Your task to perform on an android device: Search for sushi restaurants on Maps Image 0: 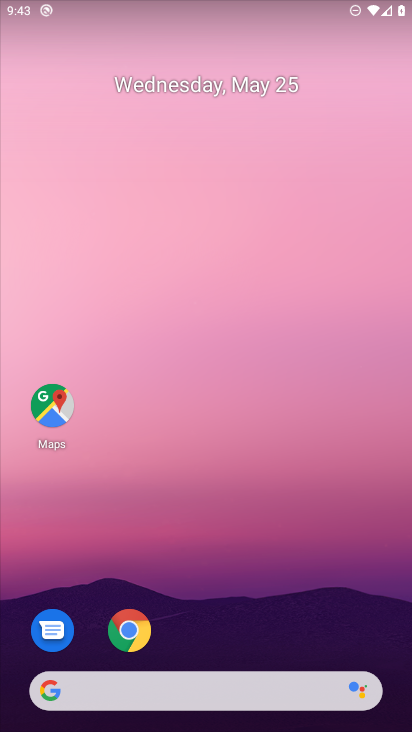
Step 0: click (49, 413)
Your task to perform on an android device: Search for sushi restaurants on Maps Image 1: 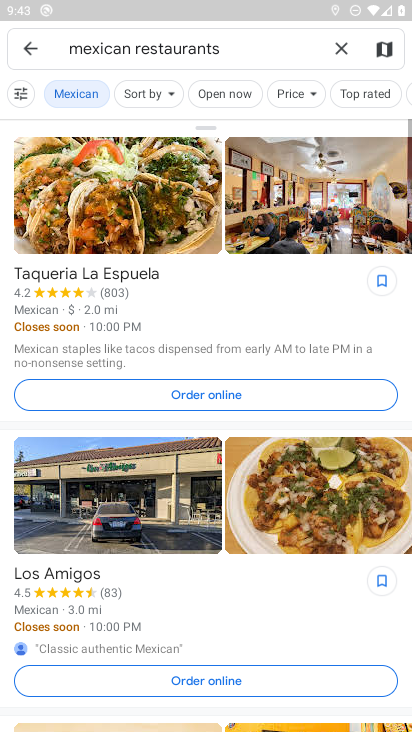
Step 1: click (334, 45)
Your task to perform on an android device: Search for sushi restaurants on Maps Image 2: 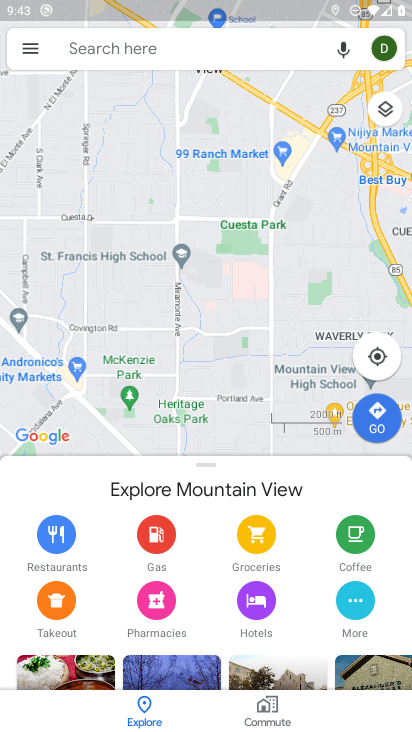
Step 2: click (217, 57)
Your task to perform on an android device: Search for sushi restaurants on Maps Image 3: 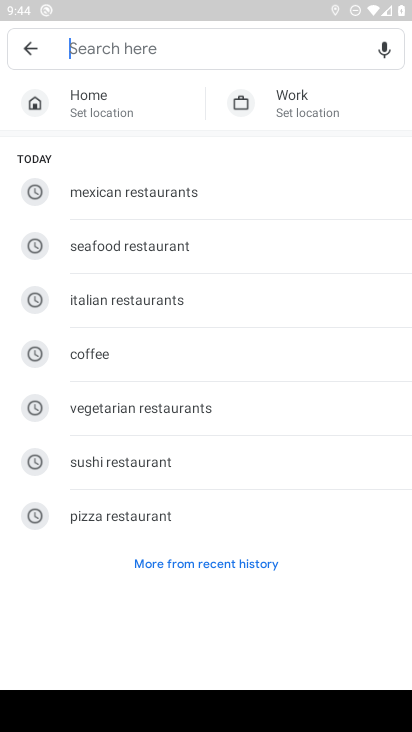
Step 3: click (132, 462)
Your task to perform on an android device: Search for sushi restaurants on Maps Image 4: 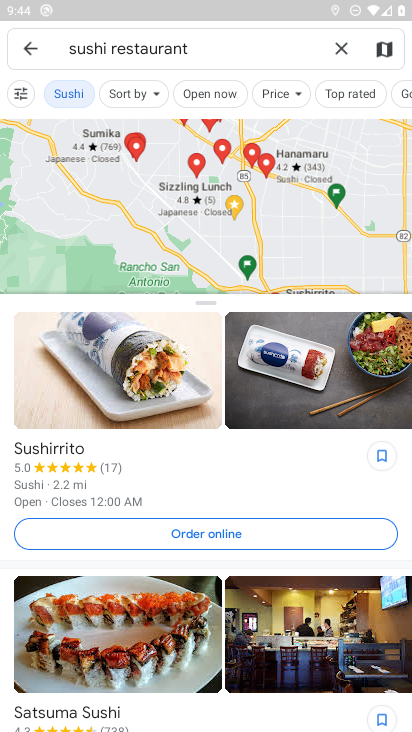
Step 4: drag from (183, 648) to (191, 177)
Your task to perform on an android device: Search for sushi restaurants on Maps Image 5: 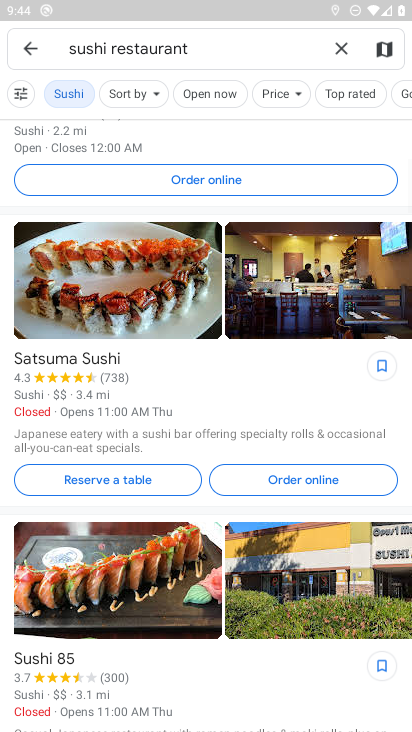
Step 5: drag from (229, 587) to (227, 239)
Your task to perform on an android device: Search for sushi restaurants on Maps Image 6: 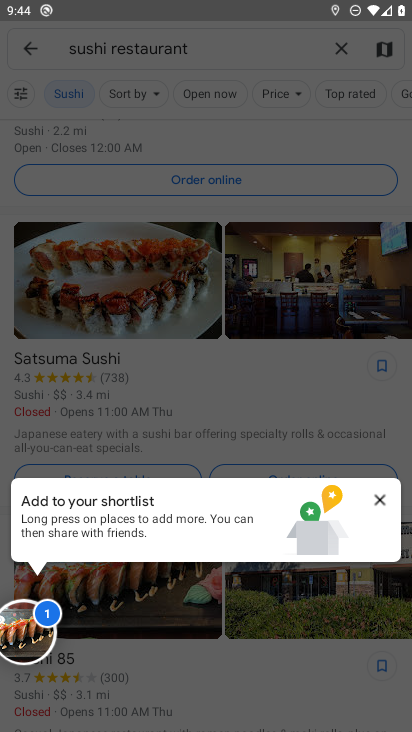
Step 6: click (382, 503)
Your task to perform on an android device: Search for sushi restaurants on Maps Image 7: 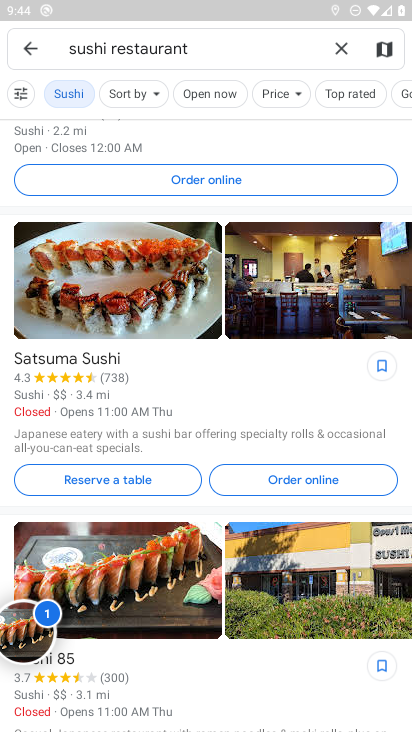
Step 7: task complete